Your task to perform on an android device: turn off sleep mode Image 0: 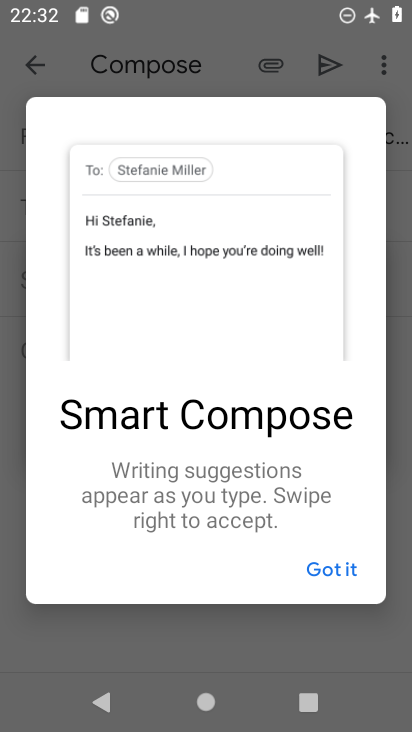
Step 0: press home button
Your task to perform on an android device: turn off sleep mode Image 1: 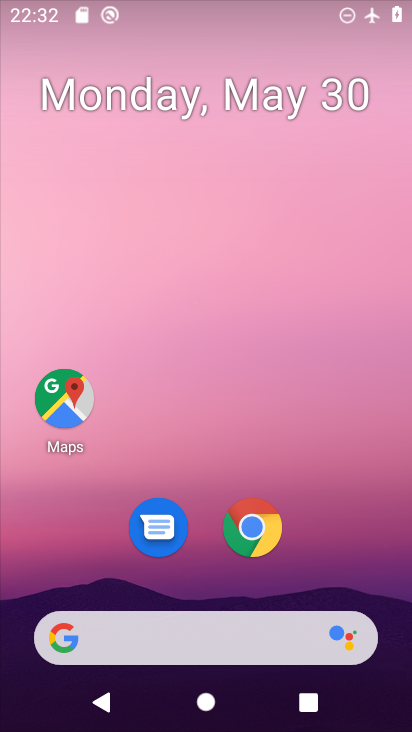
Step 1: drag from (299, 564) to (294, 259)
Your task to perform on an android device: turn off sleep mode Image 2: 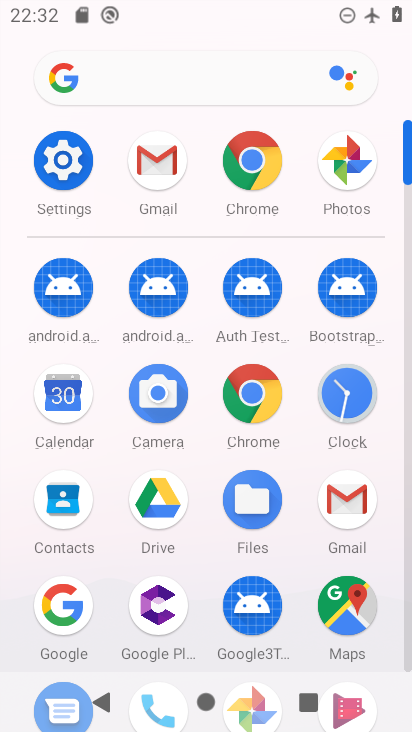
Step 2: click (55, 146)
Your task to perform on an android device: turn off sleep mode Image 3: 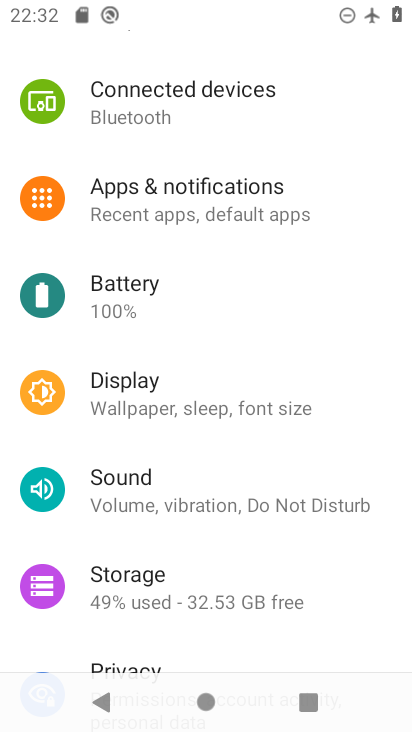
Step 3: task complete